Your task to perform on an android device: clear history in the chrome app Image 0: 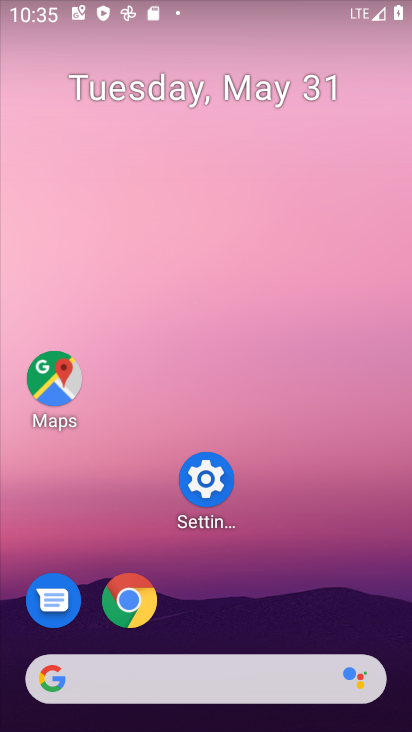
Step 0: press home button
Your task to perform on an android device: clear history in the chrome app Image 1: 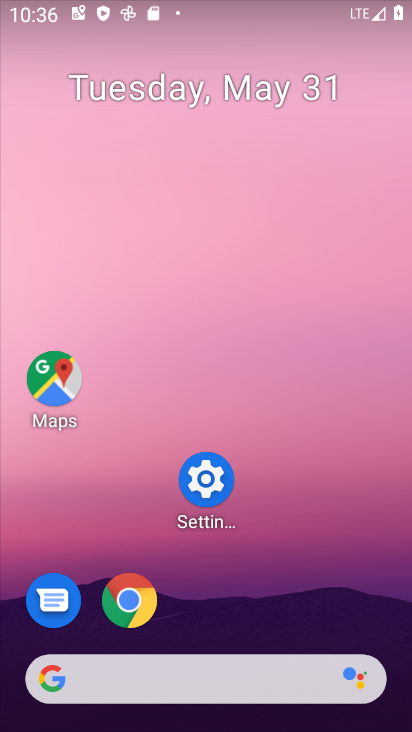
Step 1: drag from (227, 708) to (303, 238)
Your task to perform on an android device: clear history in the chrome app Image 2: 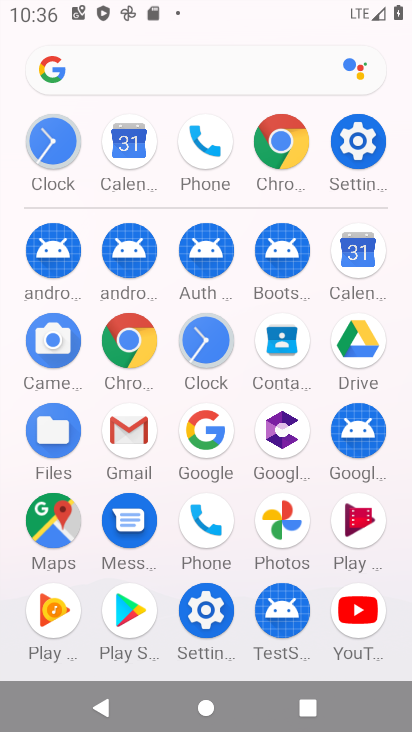
Step 2: click (270, 150)
Your task to perform on an android device: clear history in the chrome app Image 3: 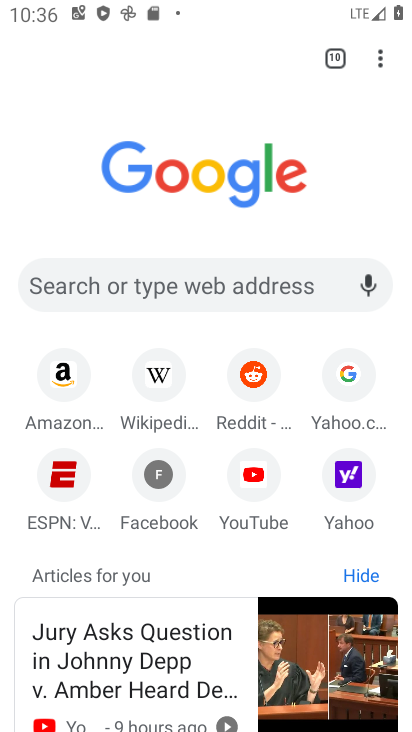
Step 3: click (380, 63)
Your task to perform on an android device: clear history in the chrome app Image 4: 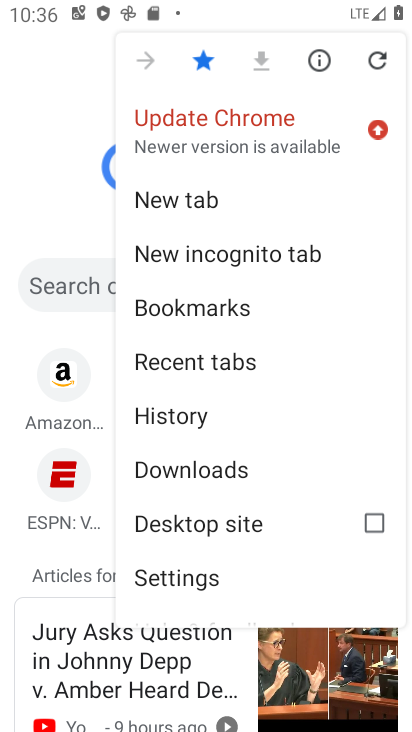
Step 4: click (190, 419)
Your task to perform on an android device: clear history in the chrome app Image 5: 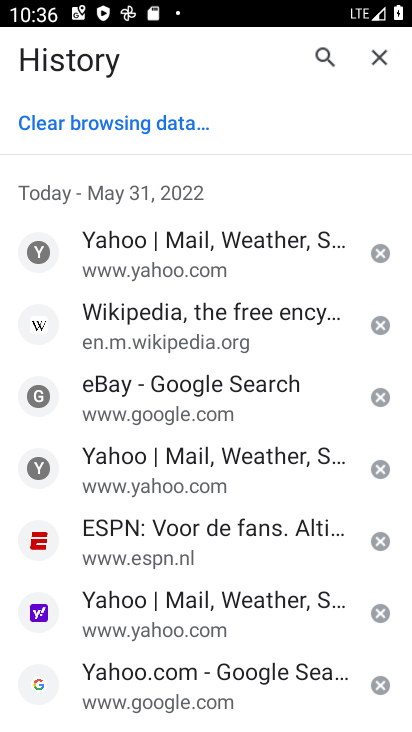
Step 5: click (178, 107)
Your task to perform on an android device: clear history in the chrome app Image 6: 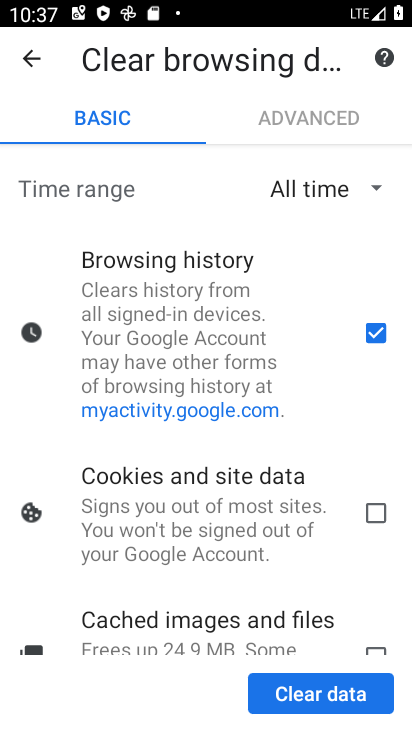
Step 6: click (310, 681)
Your task to perform on an android device: clear history in the chrome app Image 7: 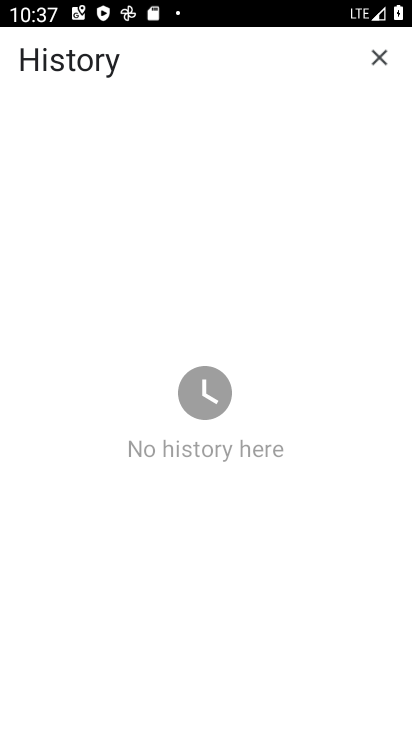
Step 7: task complete